Your task to perform on an android device: Turn off the flashlight Image 0: 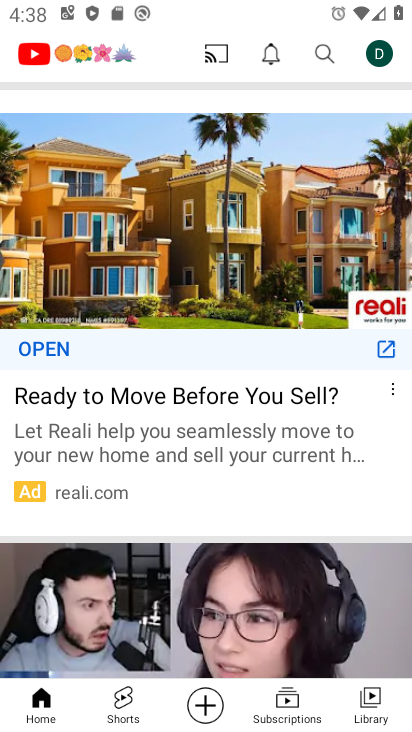
Step 0: press home button
Your task to perform on an android device: Turn off the flashlight Image 1: 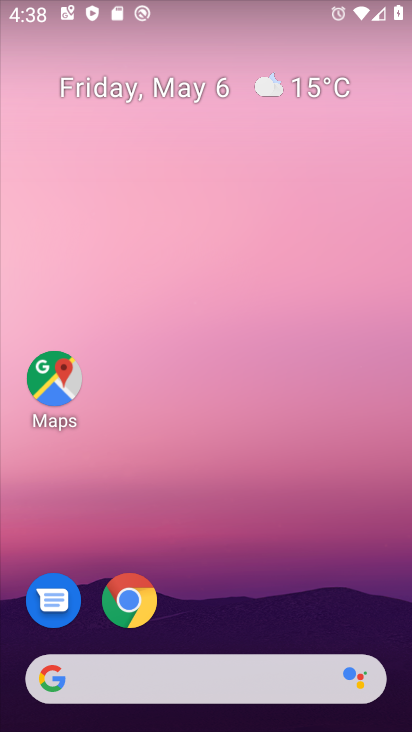
Step 1: drag from (218, 596) to (280, 22)
Your task to perform on an android device: Turn off the flashlight Image 2: 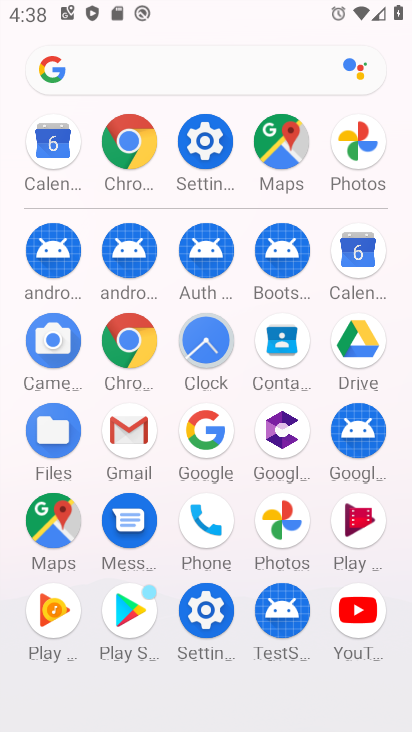
Step 2: click (193, 626)
Your task to perform on an android device: Turn off the flashlight Image 3: 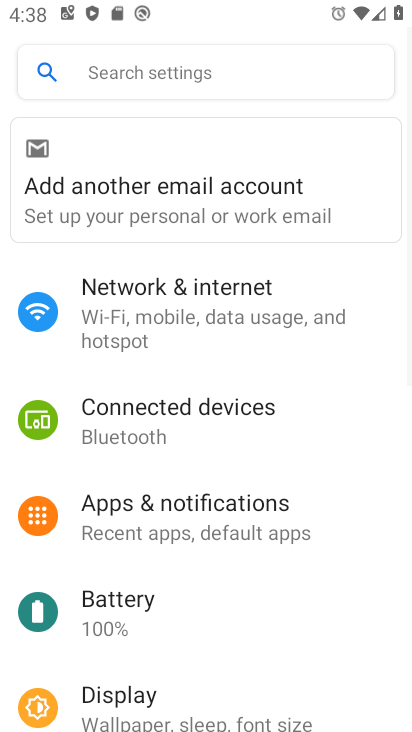
Step 3: click (165, 85)
Your task to perform on an android device: Turn off the flashlight Image 4: 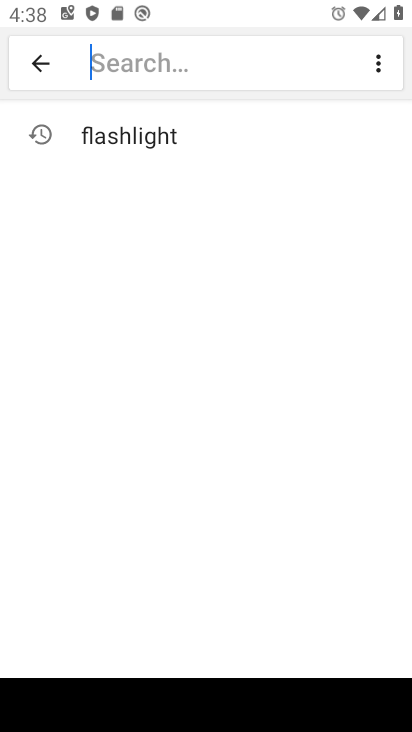
Step 4: click (153, 152)
Your task to perform on an android device: Turn off the flashlight Image 5: 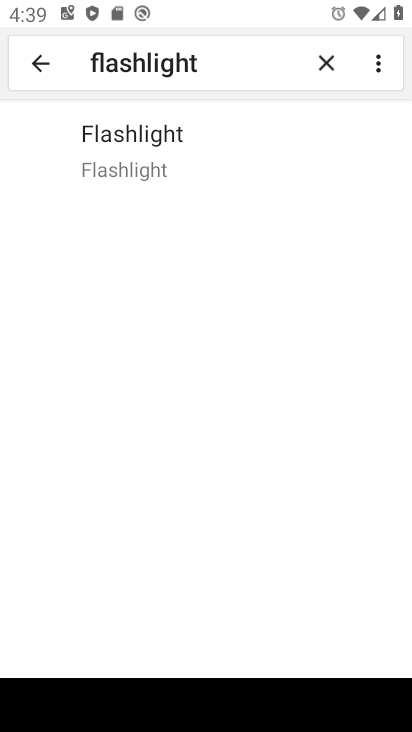
Step 5: click (139, 155)
Your task to perform on an android device: Turn off the flashlight Image 6: 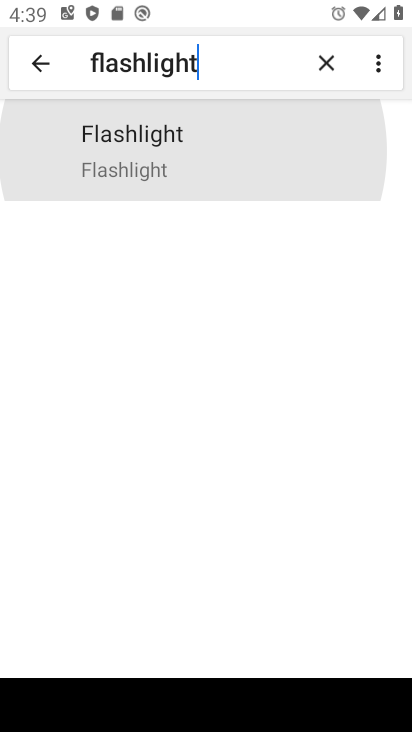
Step 6: click (139, 157)
Your task to perform on an android device: Turn off the flashlight Image 7: 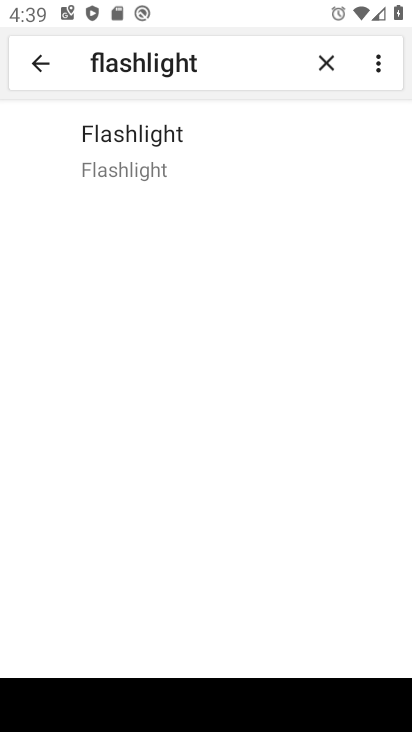
Step 7: task complete